Your task to perform on an android device: Go to location settings Image 0: 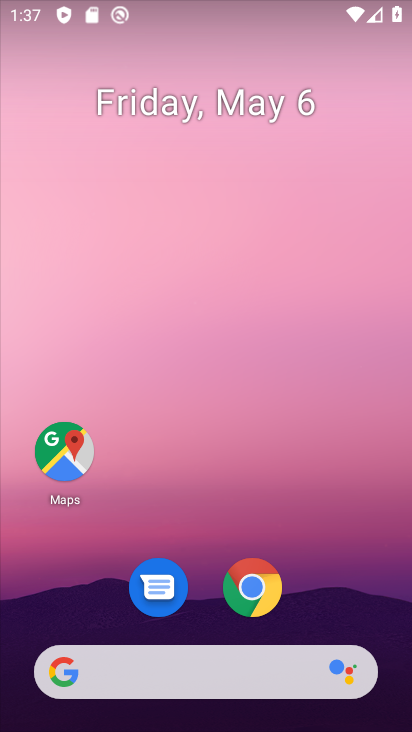
Step 0: drag from (345, 569) to (383, 0)
Your task to perform on an android device: Go to location settings Image 1: 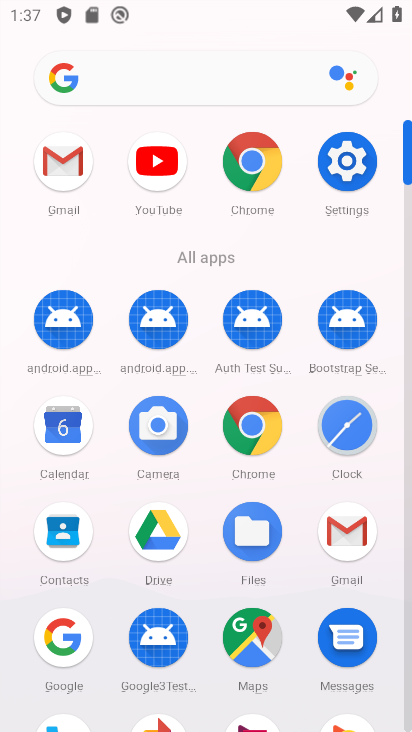
Step 1: click (324, 164)
Your task to perform on an android device: Go to location settings Image 2: 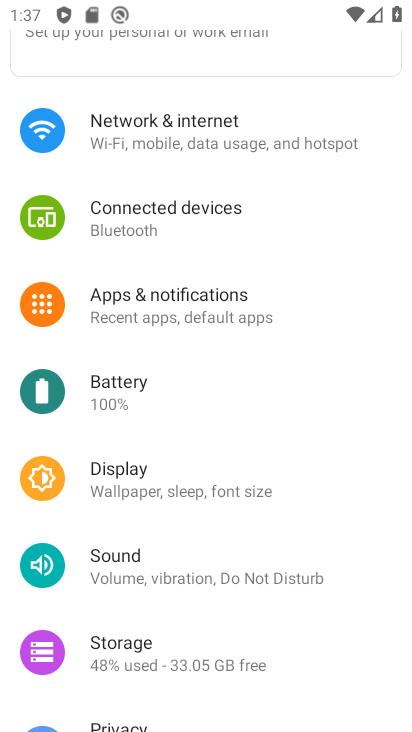
Step 2: click (239, 312)
Your task to perform on an android device: Go to location settings Image 3: 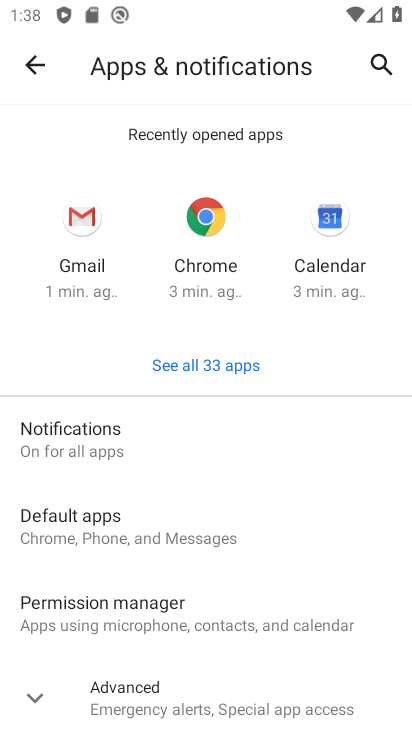
Step 3: drag from (166, 602) to (215, 363)
Your task to perform on an android device: Go to location settings Image 4: 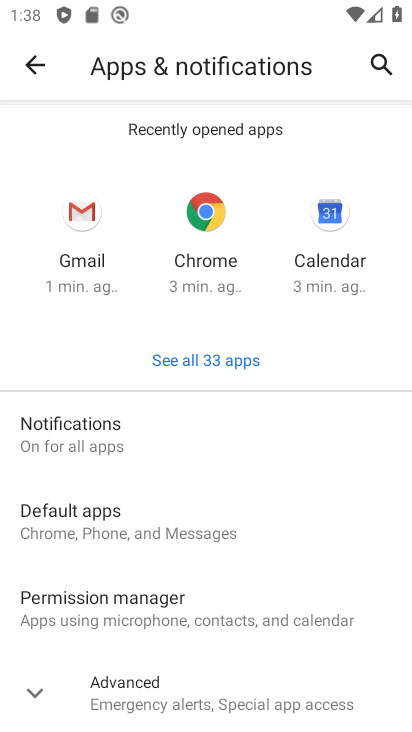
Step 4: drag from (83, 659) to (150, 317)
Your task to perform on an android device: Go to location settings Image 5: 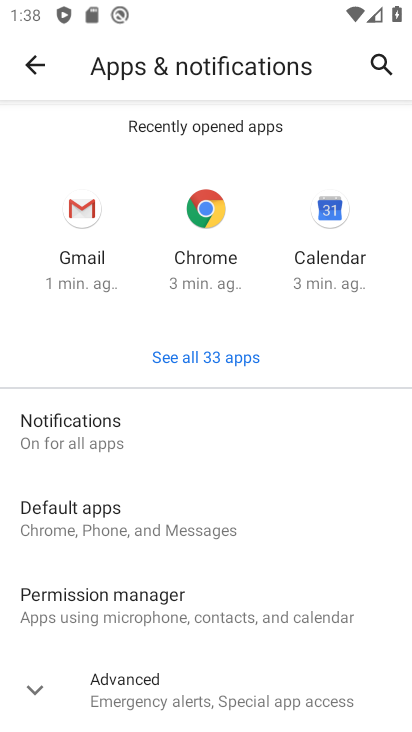
Step 5: click (40, 61)
Your task to perform on an android device: Go to location settings Image 6: 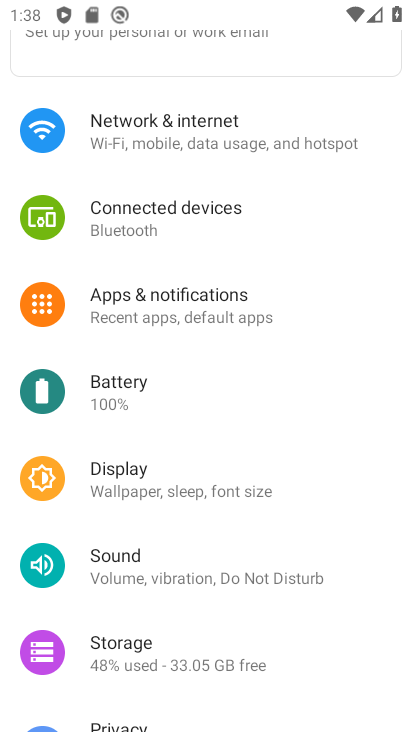
Step 6: drag from (239, 236) to (188, 475)
Your task to perform on an android device: Go to location settings Image 7: 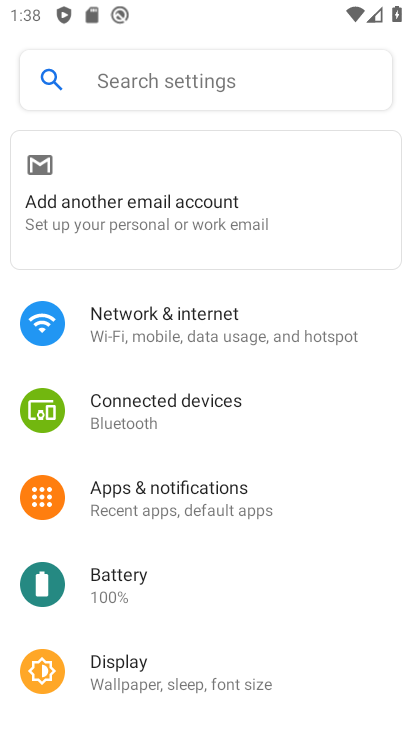
Step 7: drag from (169, 569) to (168, 183)
Your task to perform on an android device: Go to location settings Image 8: 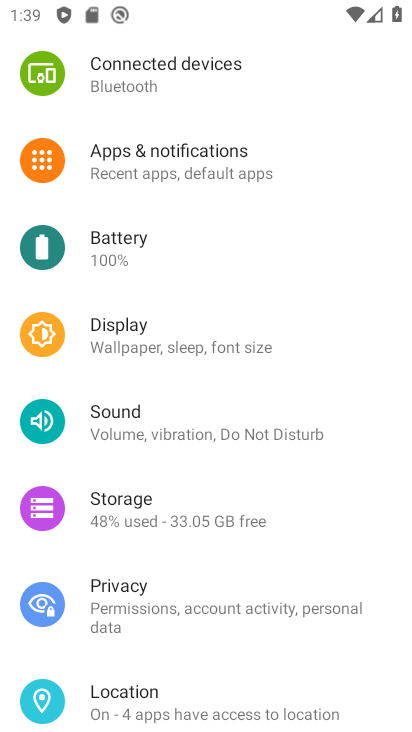
Step 8: drag from (182, 624) to (256, 274)
Your task to perform on an android device: Go to location settings Image 9: 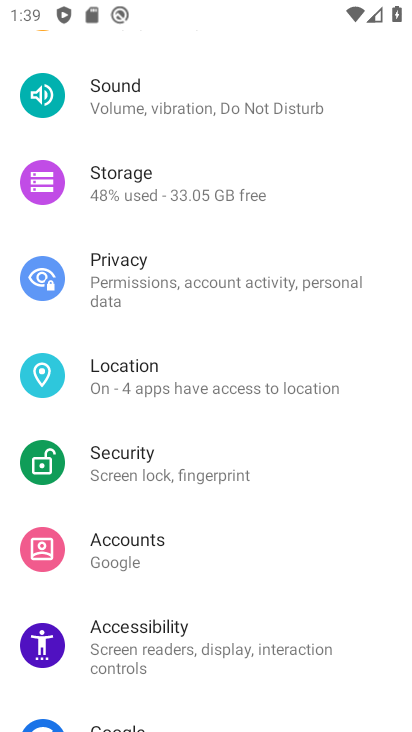
Step 9: click (114, 366)
Your task to perform on an android device: Go to location settings Image 10: 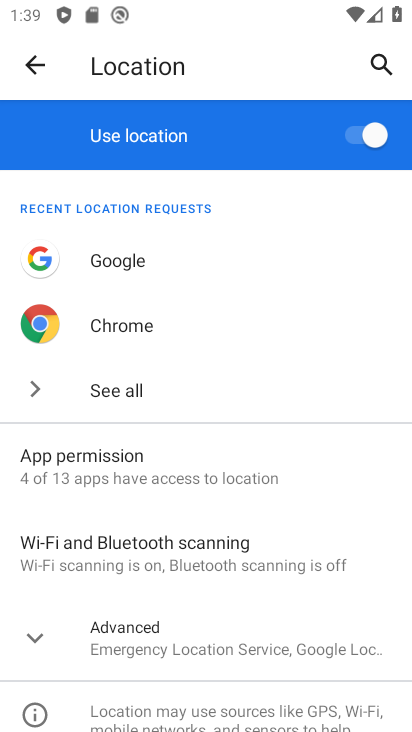
Step 10: task complete